Your task to perform on an android device: check data usage Image 0: 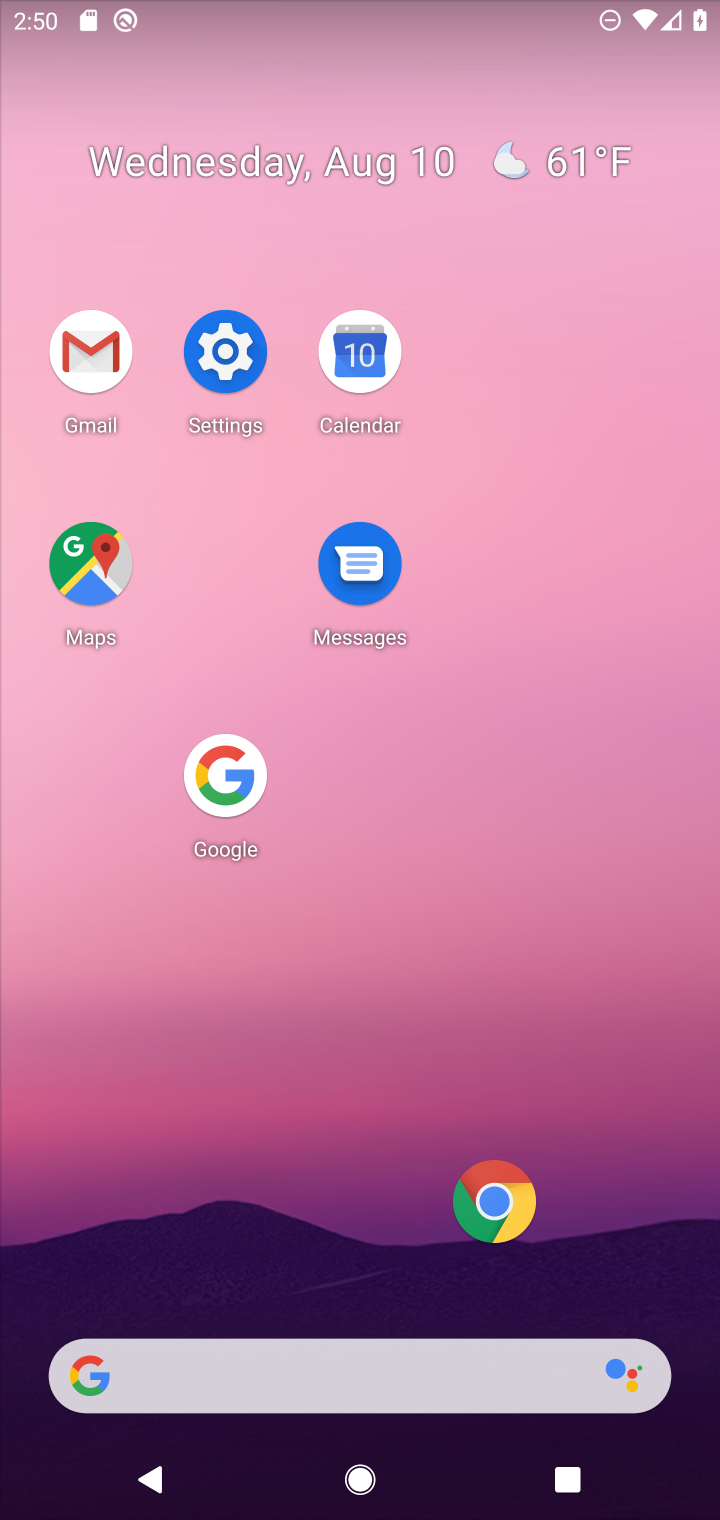
Step 0: click (217, 351)
Your task to perform on an android device: check data usage Image 1: 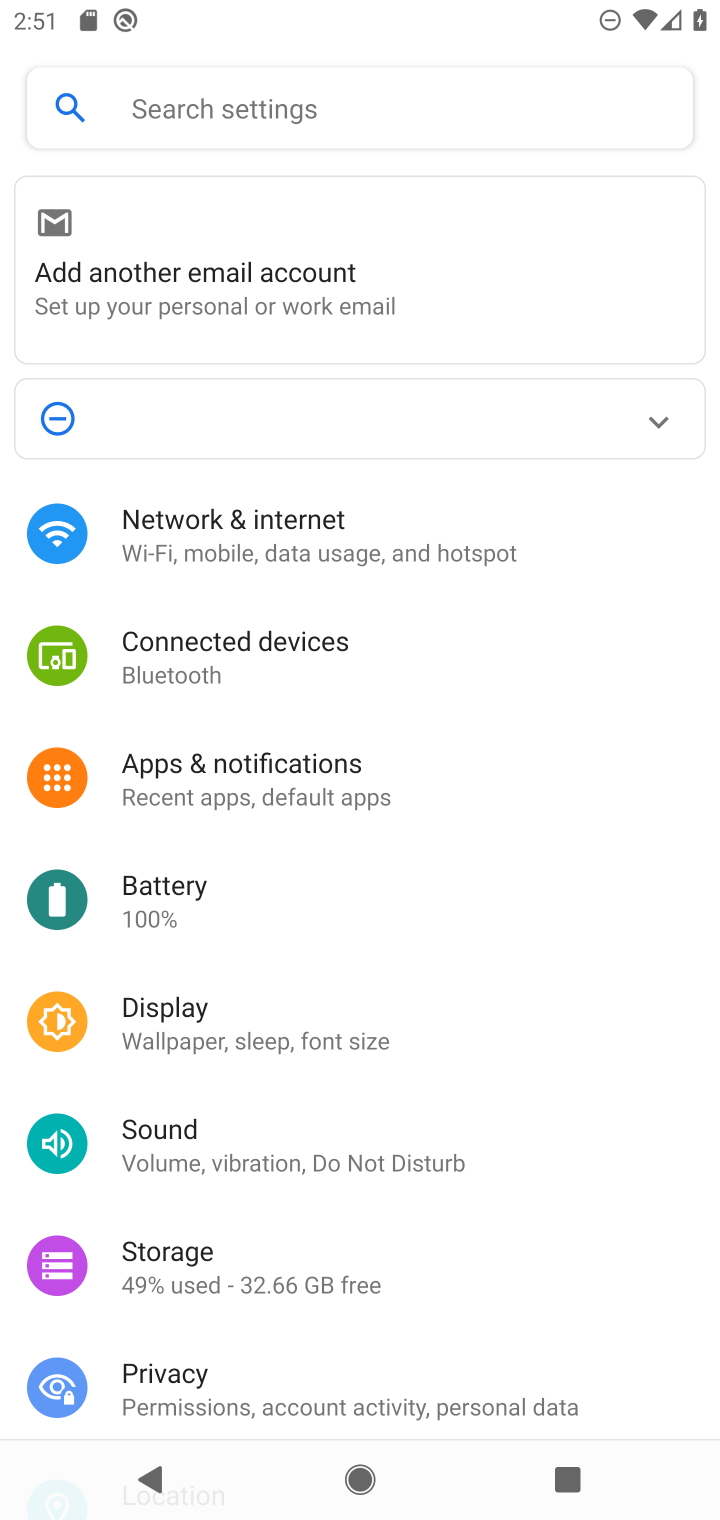
Step 1: click (328, 576)
Your task to perform on an android device: check data usage Image 2: 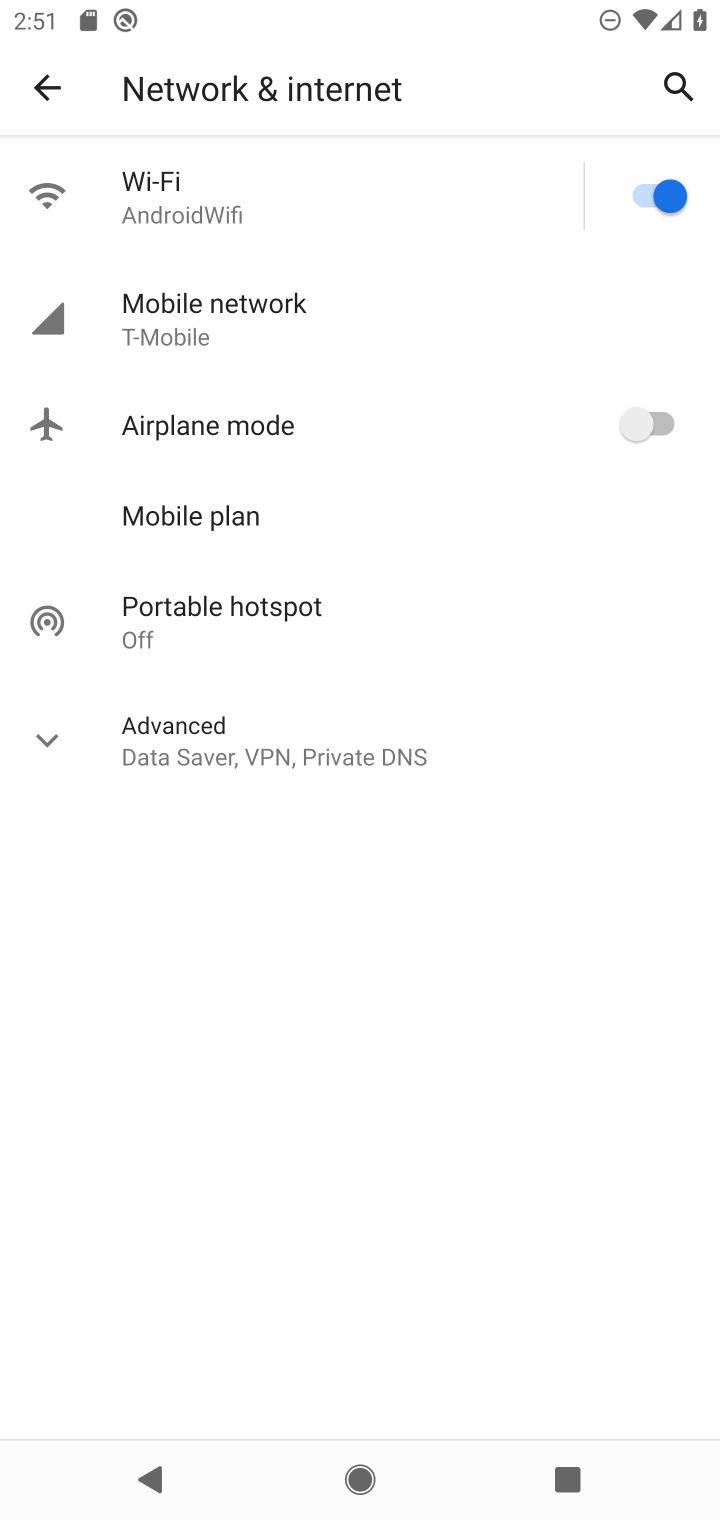
Step 2: click (402, 321)
Your task to perform on an android device: check data usage Image 3: 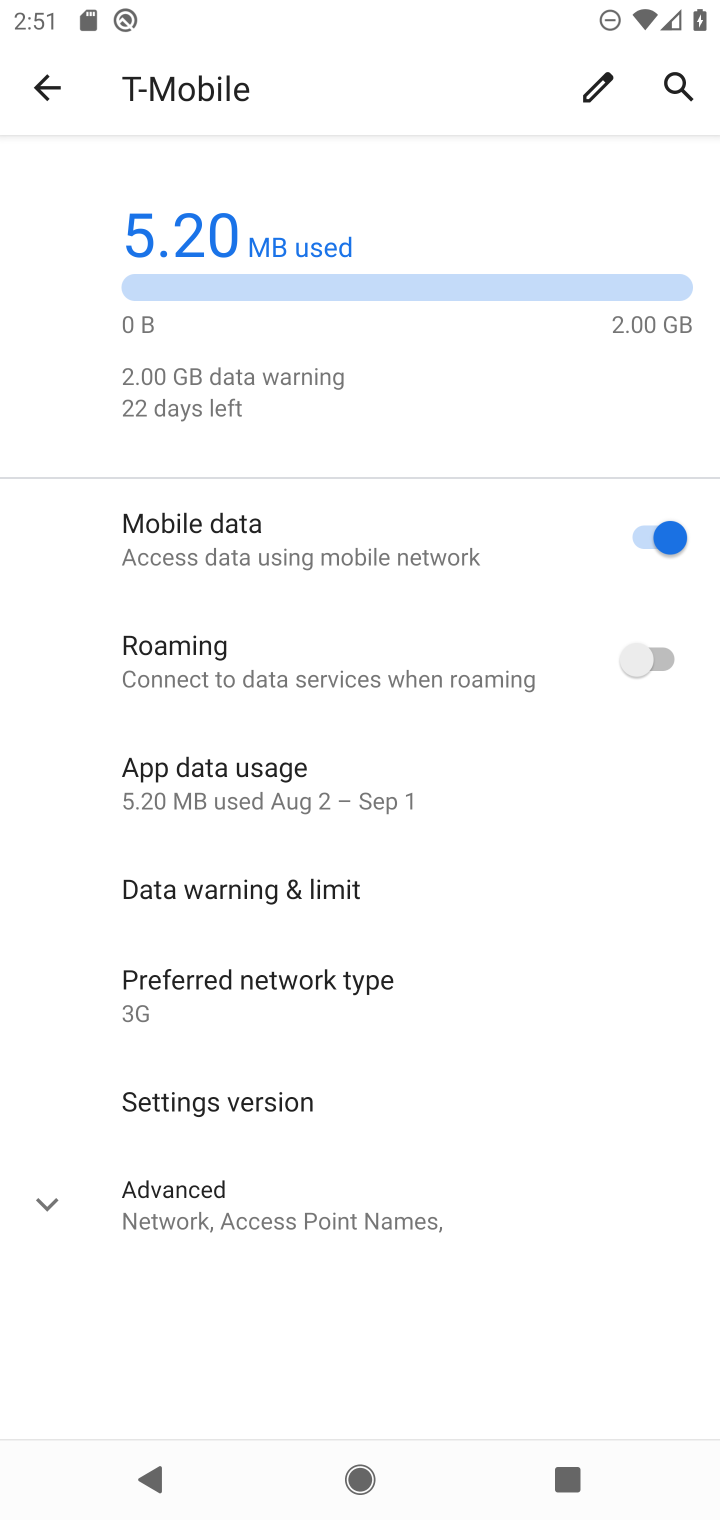
Step 3: task complete